Your task to perform on an android device: Show me recent news Image 0: 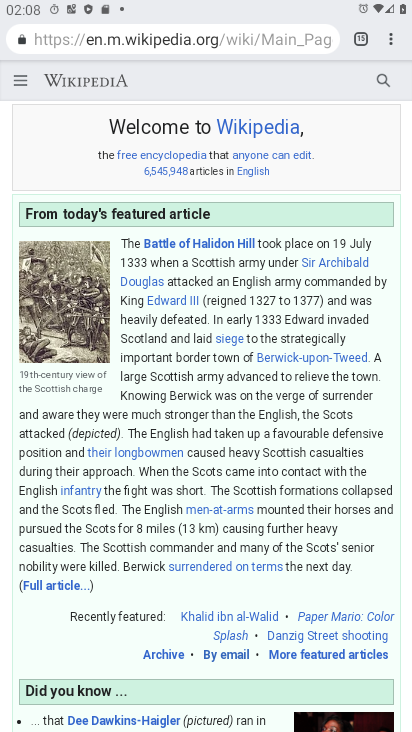
Step 0: press home button
Your task to perform on an android device: Show me recent news Image 1: 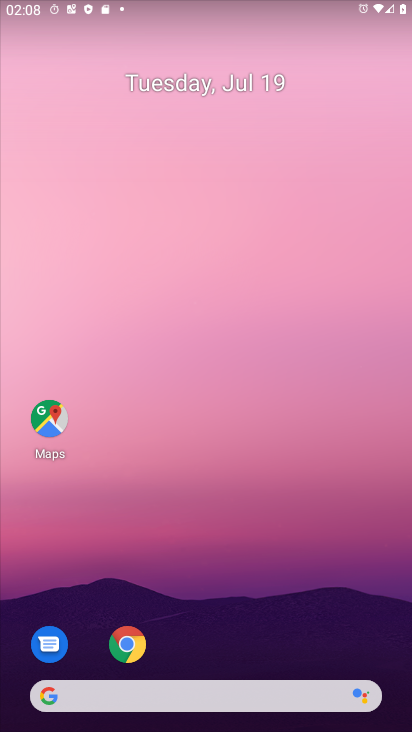
Step 1: task complete